Your task to perform on an android device: Open the phone app and click the voicemail tab. Image 0: 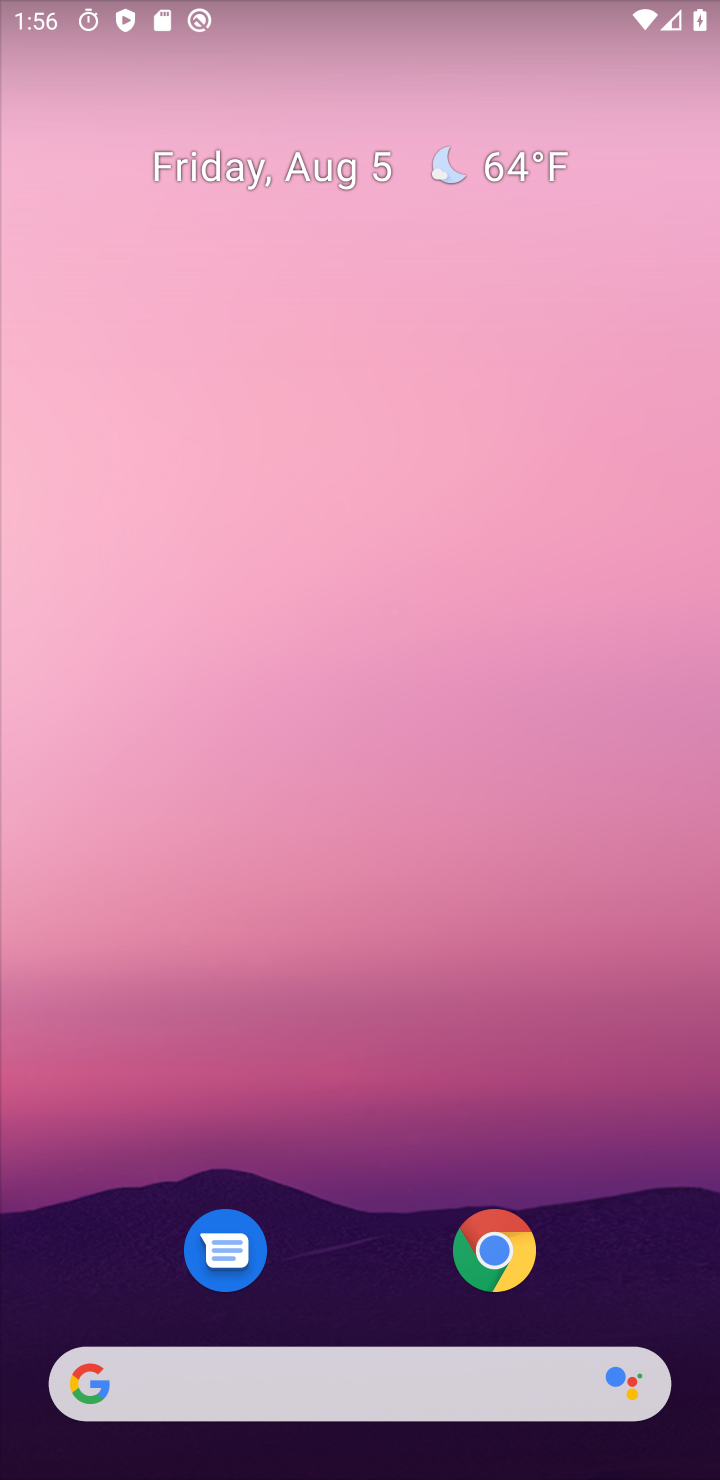
Step 0: drag from (337, 65) to (710, 1307)
Your task to perform on an android device: Open the phone app and click the voicemail tab. Image 1: 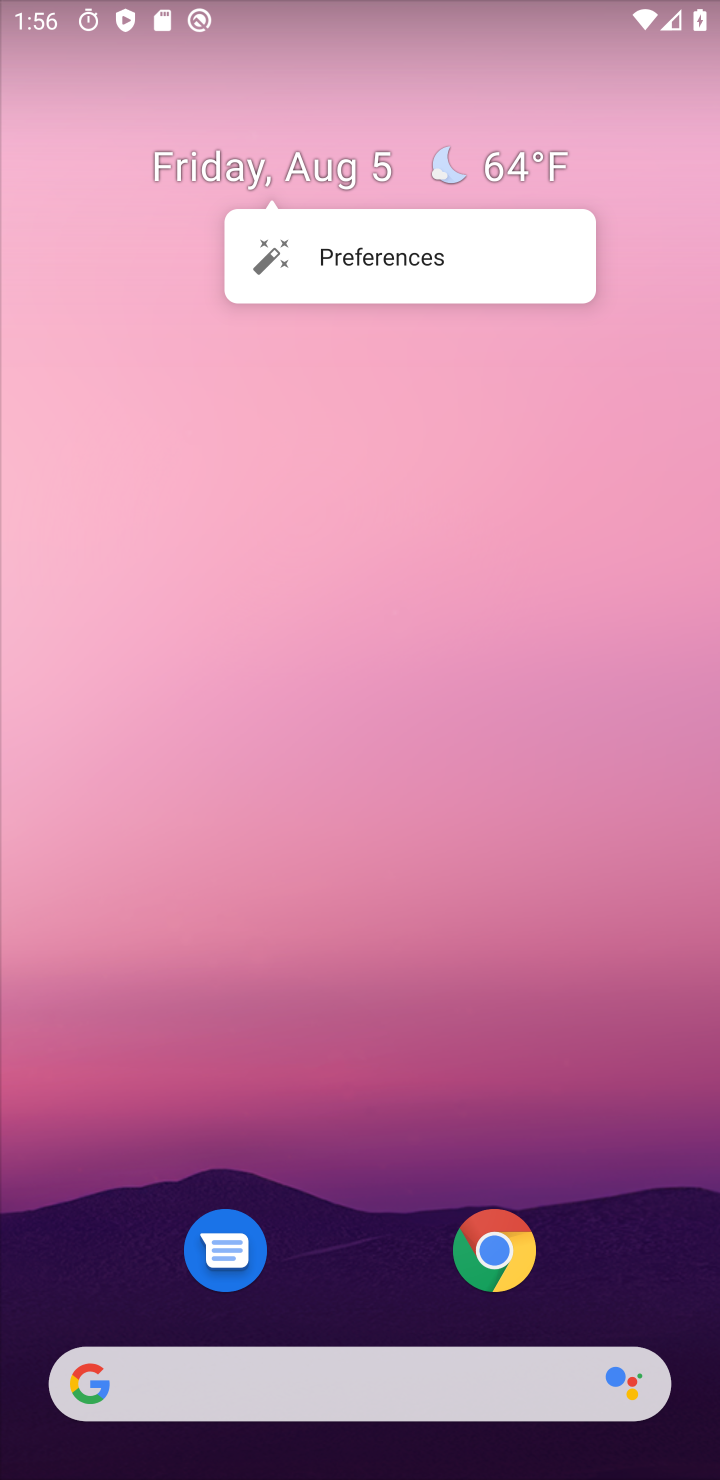
Step 1: drag from (351, 1137) to (442, 207)
Your task to perform on an android device: Open the phone app and click the voicemail tab. Image 2: 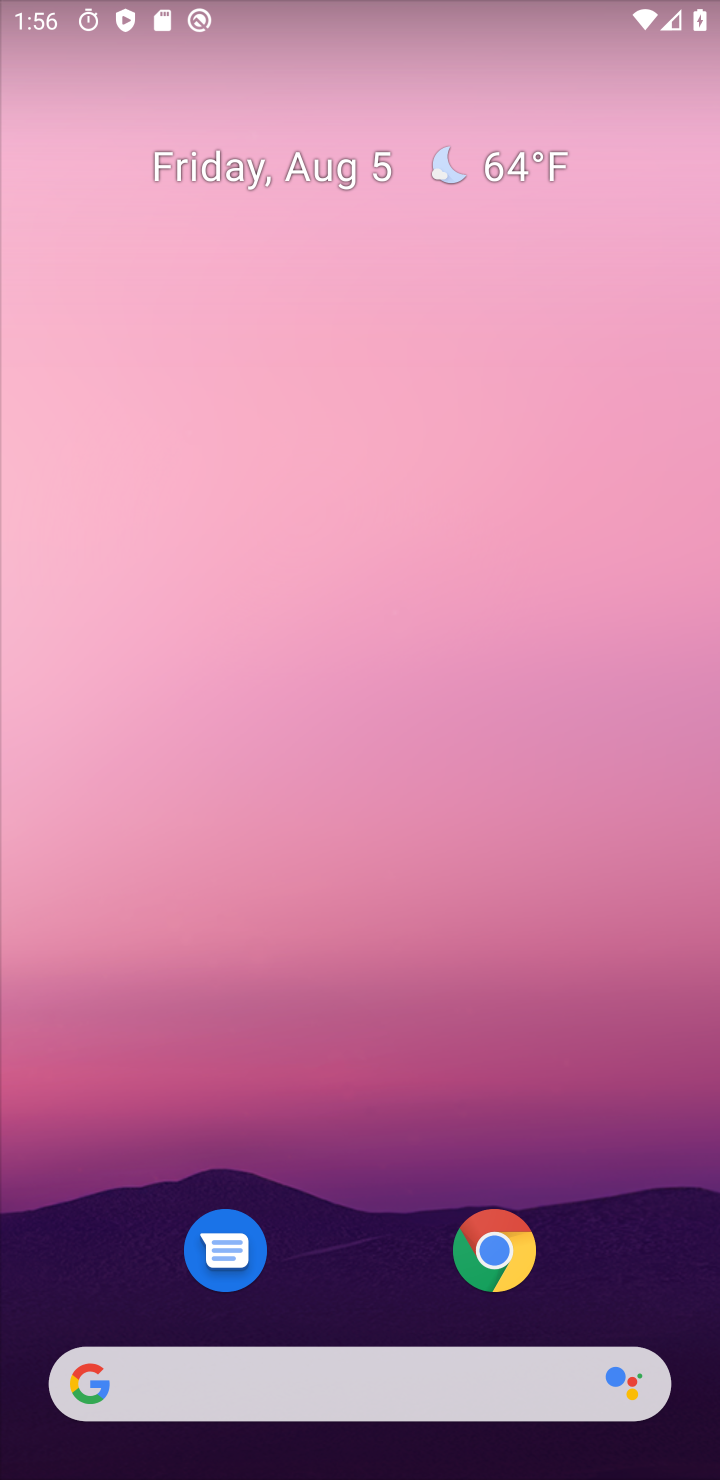
Step 2: drag from (374, 1123) to (582, 203)
Your task to perform on an android device: Open the phone app and click the voicemail tab. Image 3: 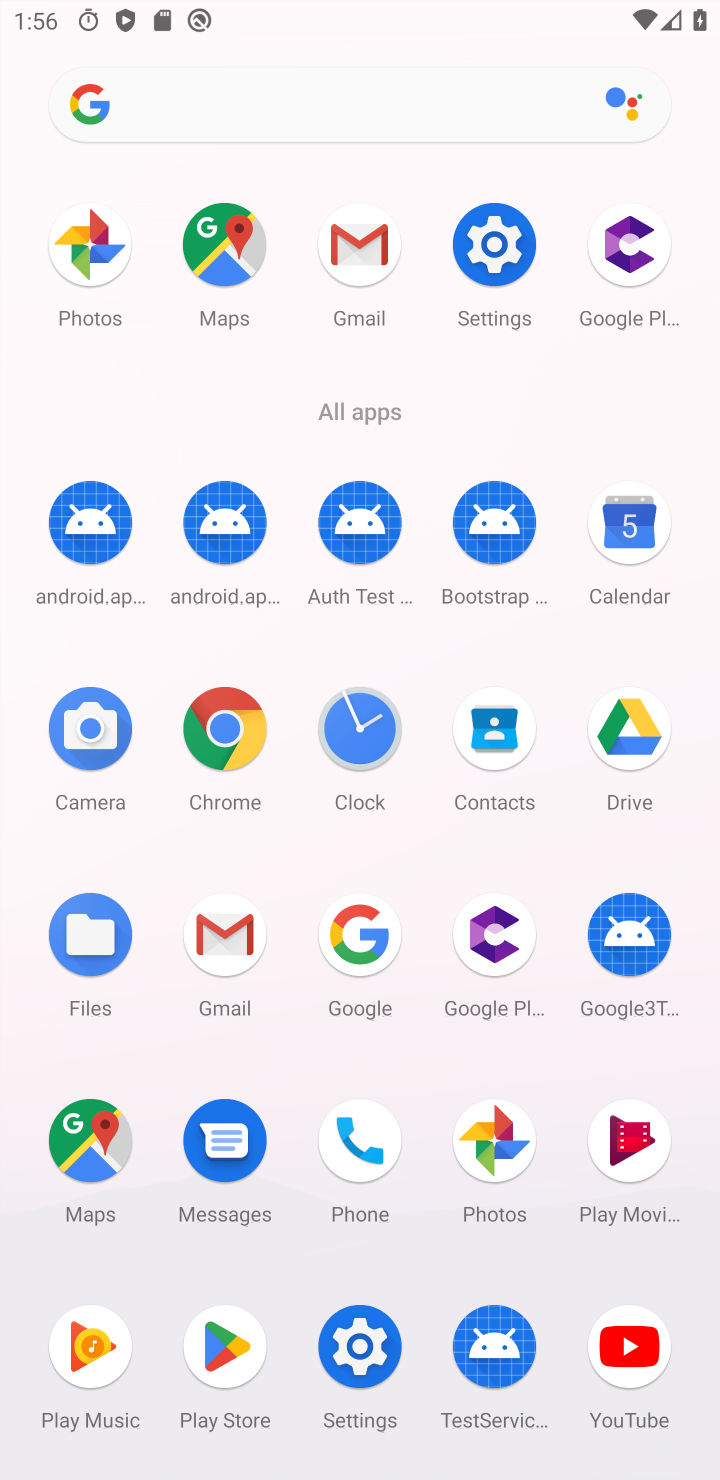
Step 3: click (349, 1115)
Your task to perform on an android device: Open the phone app and click the voicemail tab. Image 4: 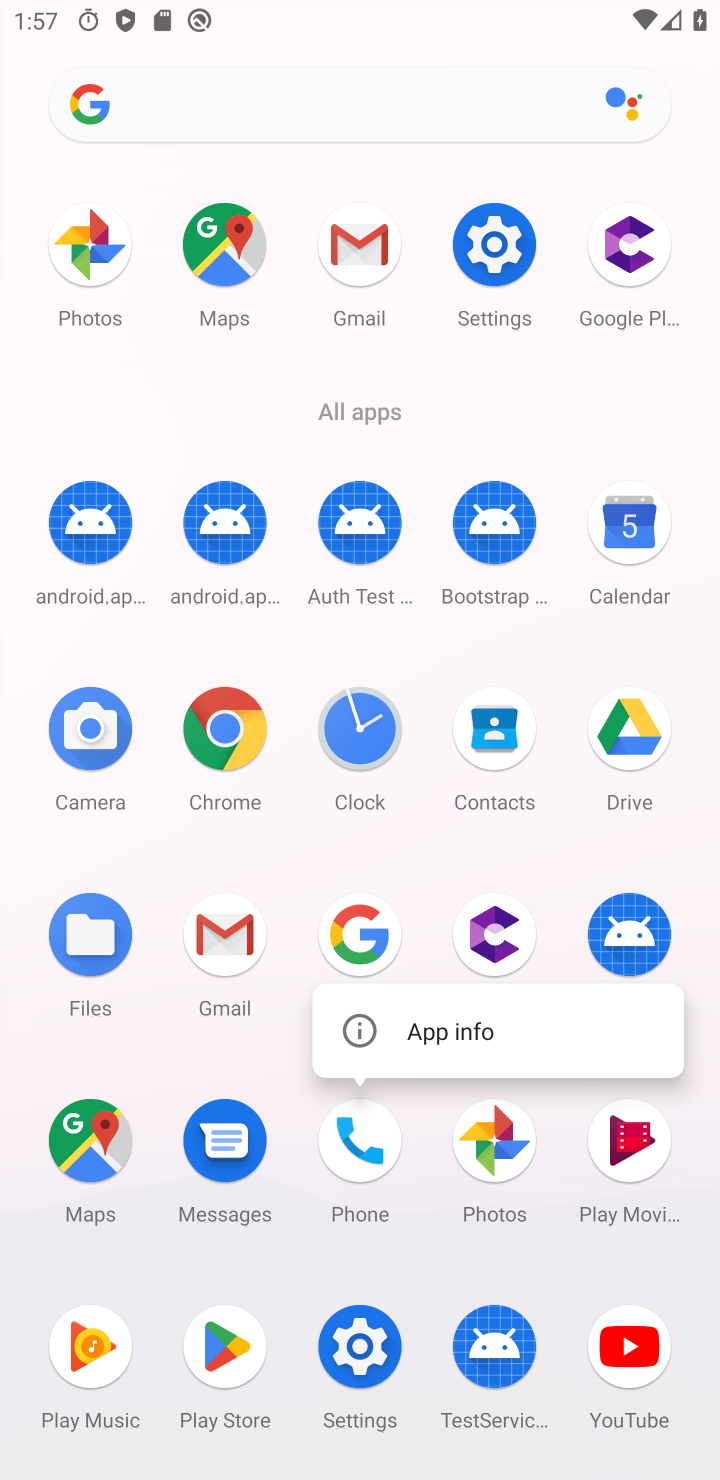
Step 4: click (411, 1026)
Your task to perform on an android device: Open the phone app and click the voicemail tab. Image 5: 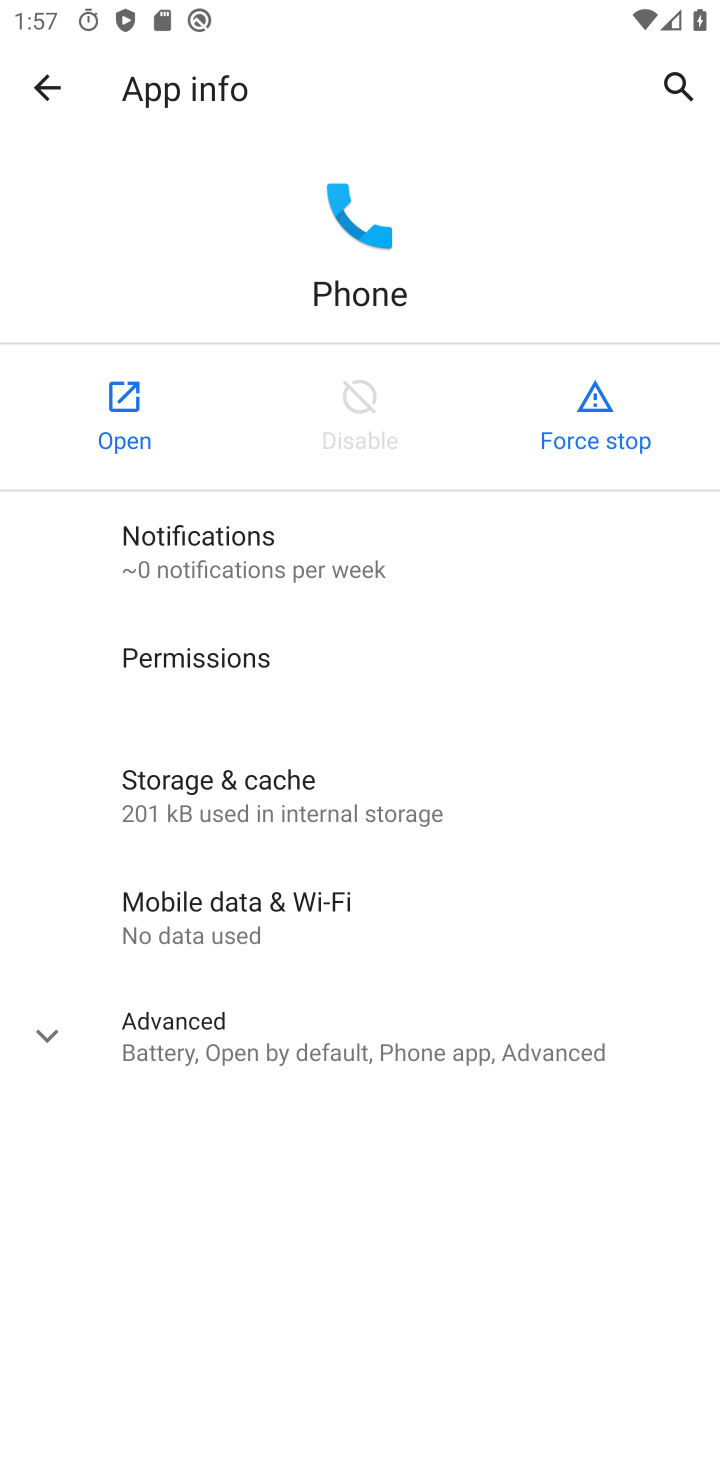
Step 5: click (132, 406)
Your task to perform on an android device: Open the phone app and click the voicemail tab. Image 6: 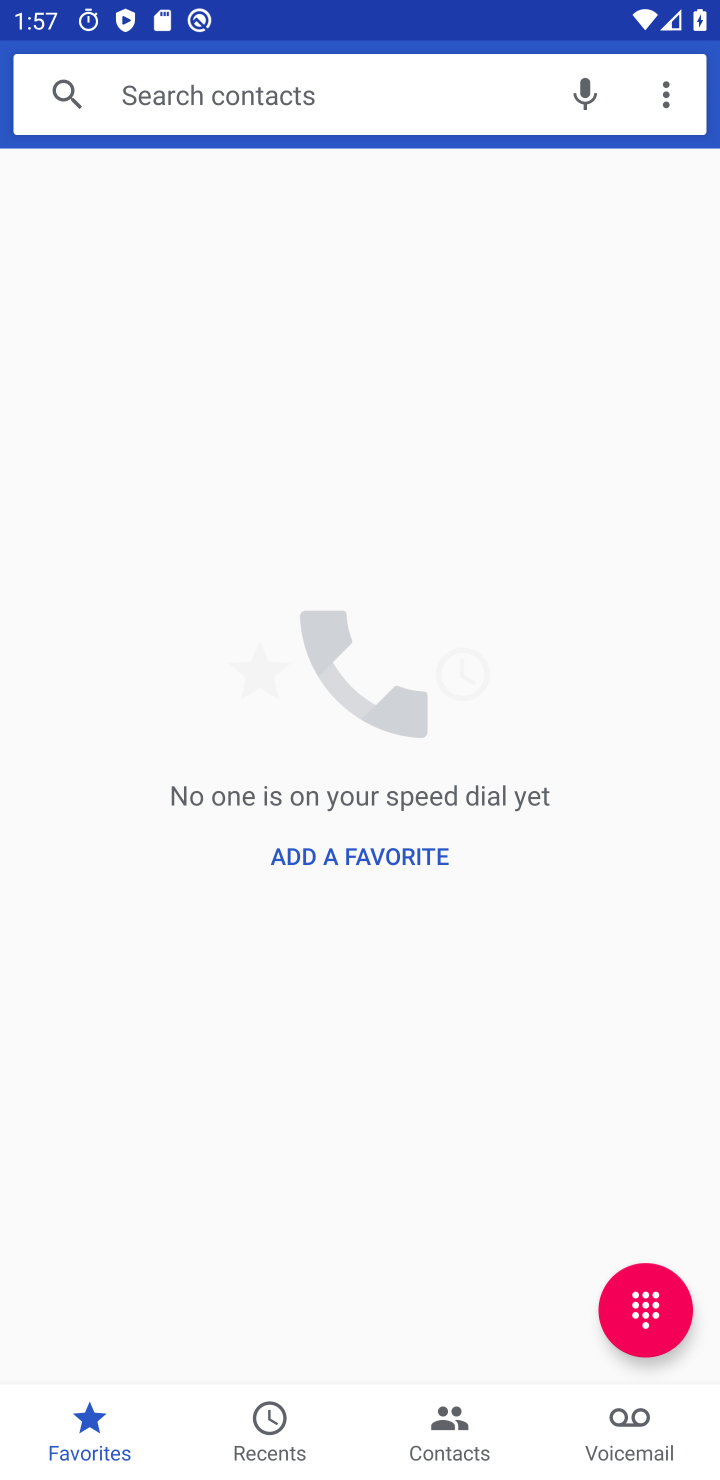
Step 6: drag from (419, 1002) to (435, 705)
Your task to perform on an android device: Open the phone app and click the voicemail tab. Image 7: 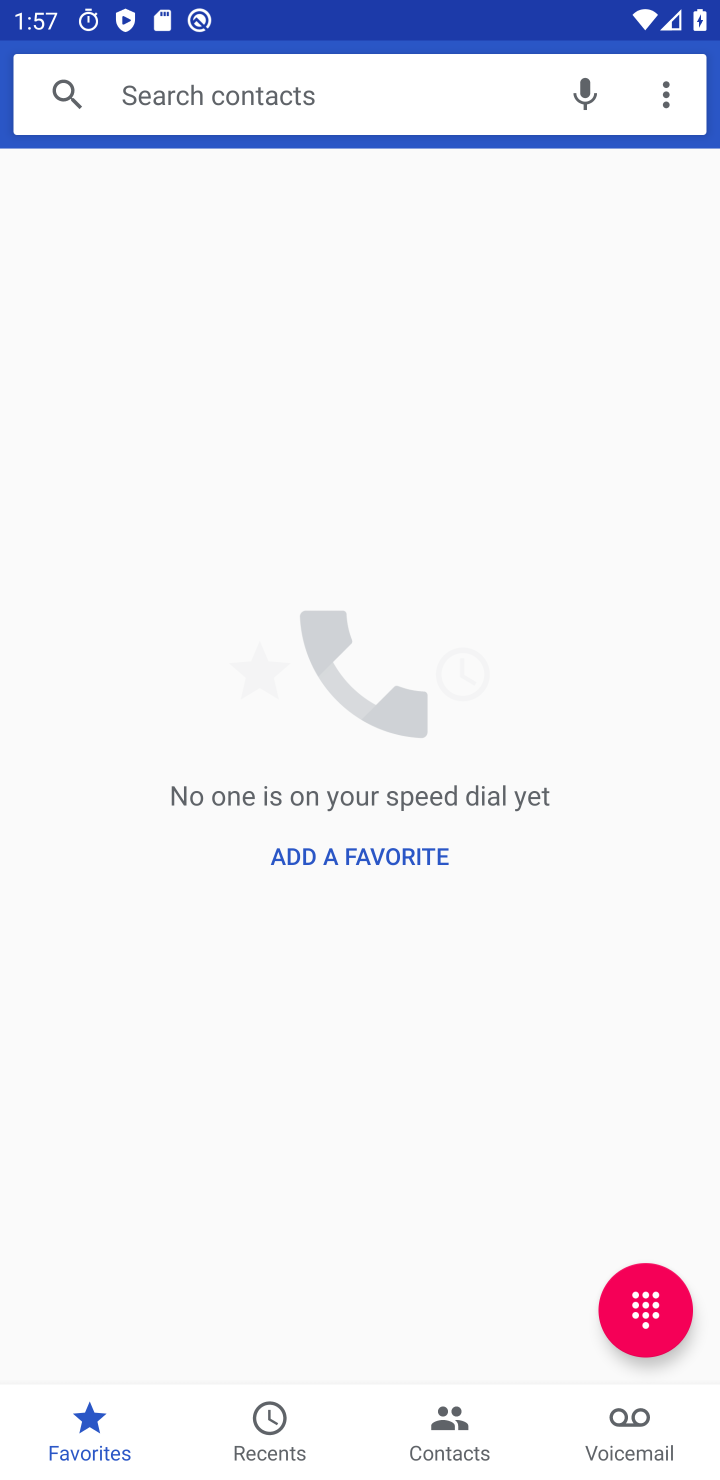
Step 7: click (629, 1470)
Your task to perform on an android device: Open the phone app and click the voicemail tab. Image 8: 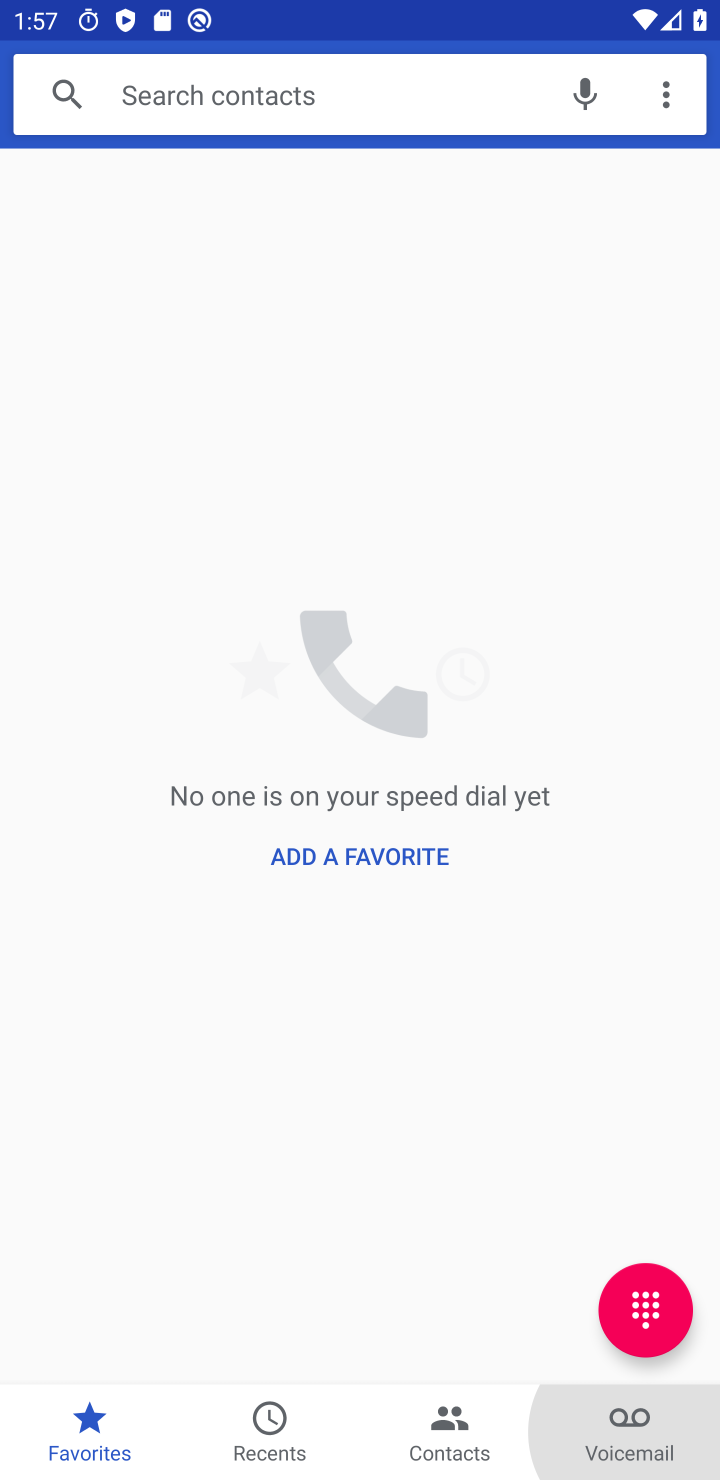
Step 8: click (629, 1451)
Your task to perform on an android device: Open the phone app and click the voicemail tab. Image 9: 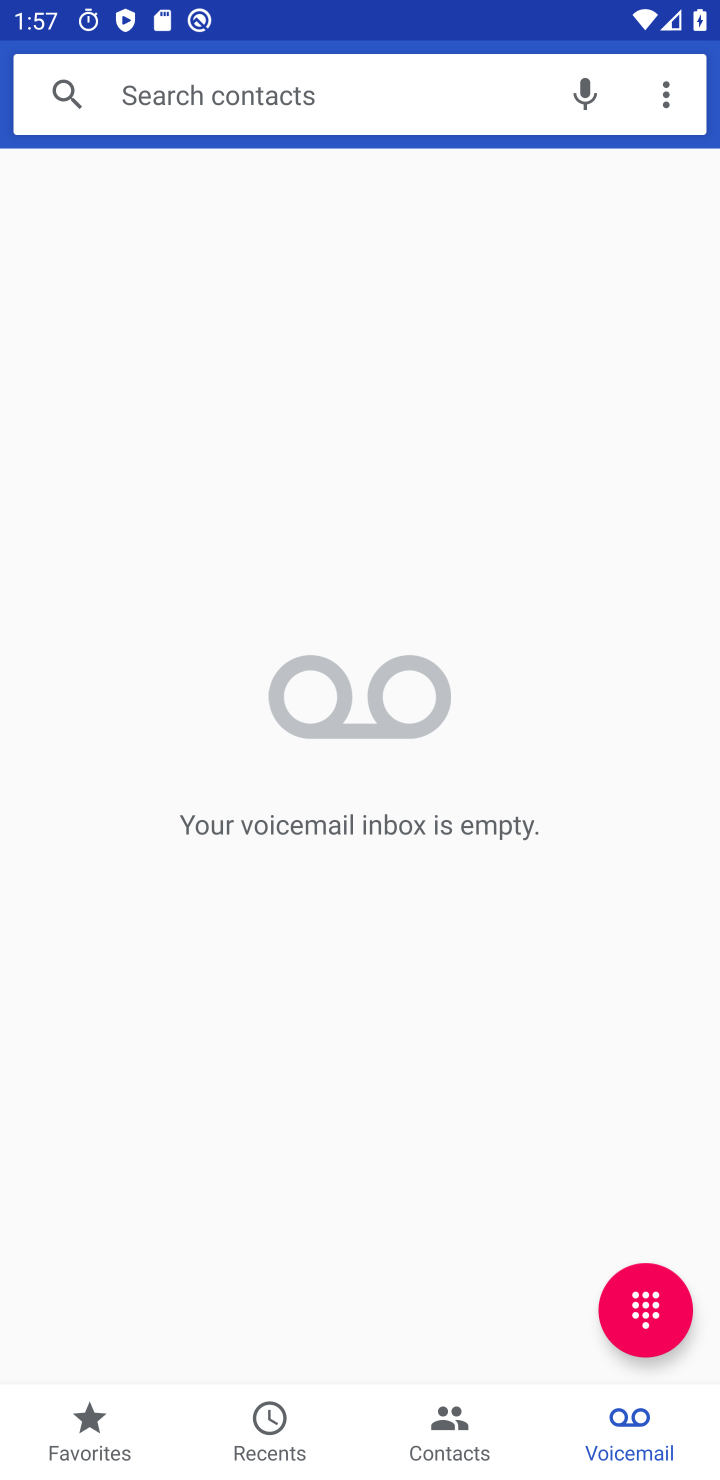
Step 9: task complete